Your task to perform on an android device: all mails in gmail Image 0: 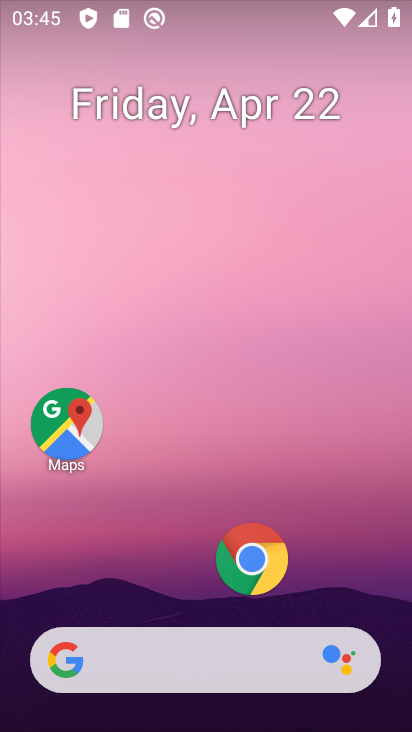
Step 0: drag from (163, 579) to (231, 23)
Your task to perform on an android device: all mails in gmail Image 1: 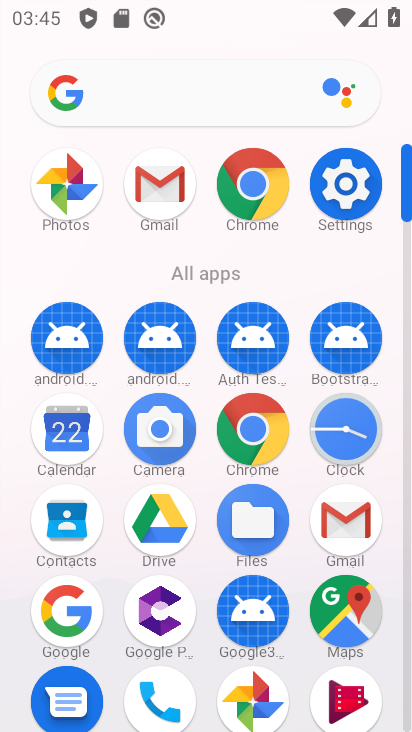
Step 1: click (356, 535)
Your task to perform on an android device: all mails in gmail Image 2: 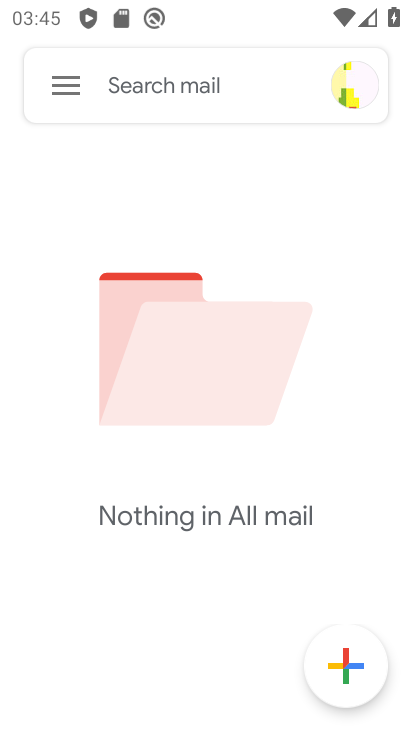
Step 2: click (67, 97)
Your task to perform on an android device: all mails in gmail Image 3: 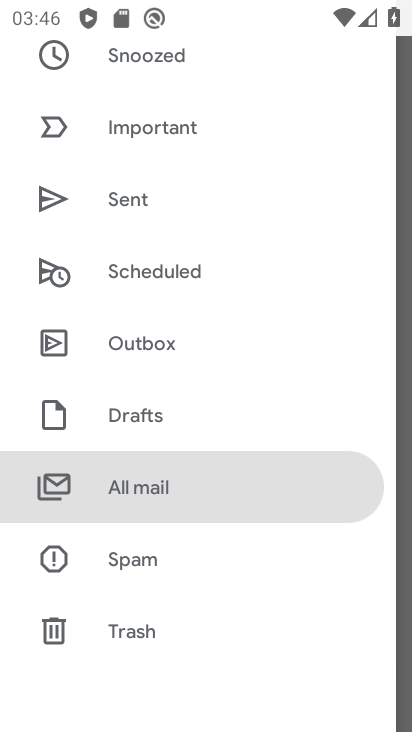
Step 3: click (190, 485)
Your task to perform on an android device: all mails in gmail Image 4: 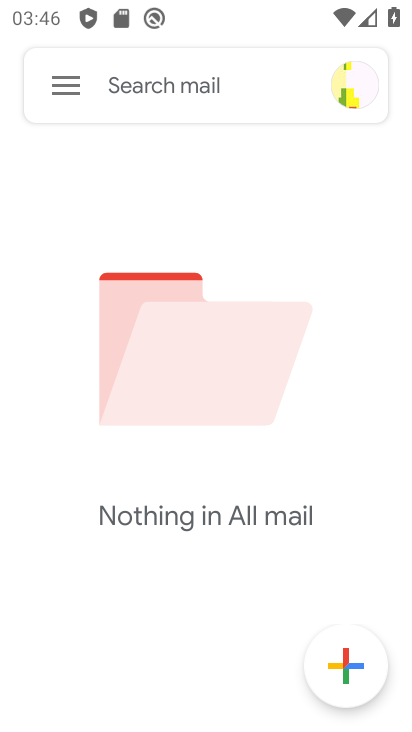
Step 4: task complete